Your task to perform on an android device: Open the phone app and click the voicemail tab. Image 0: 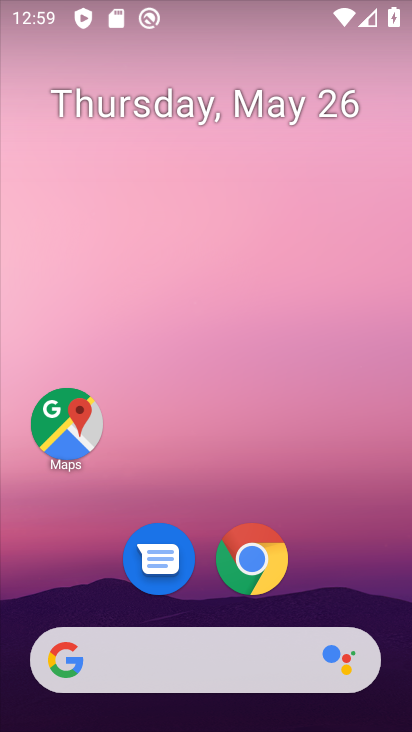
Step 0: press home button
Your task to perform on an android device: Open the phone app and click the voicemail tab. Image 1: 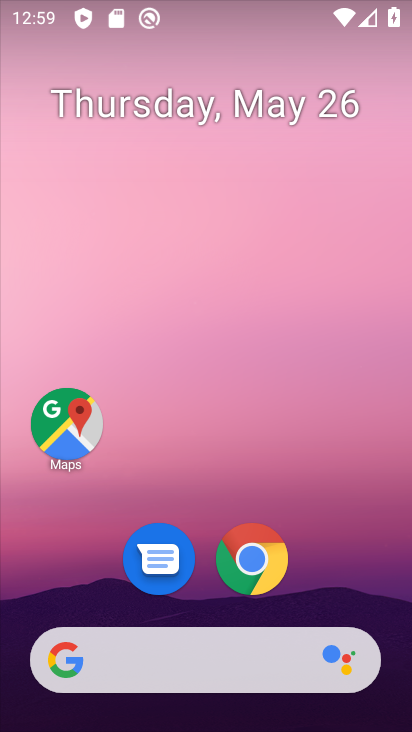
Step 1: drag from (194, 659) to (338, 221)
Your task to perform on an android device: Open the phone app and click the voicemail tab. Image 2: 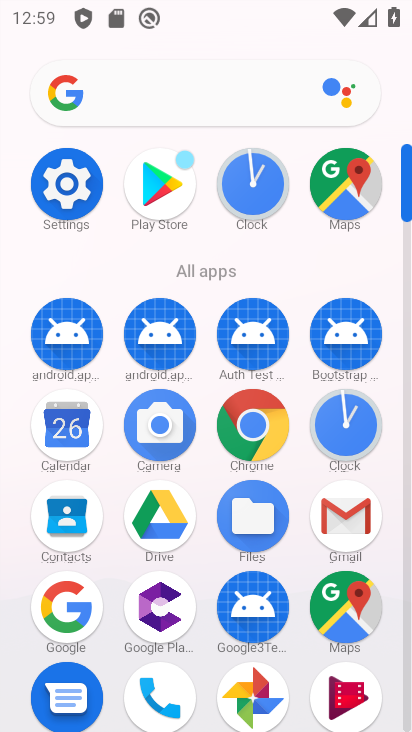
Step 2: drag from (161, 483) to (352, 154)
Your task to perform on an android device: Open the phone app and click the voicemail tab. Image 3: 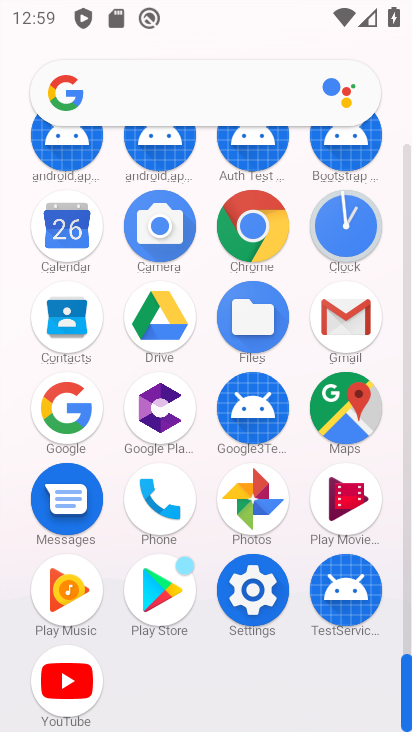
Step 3: click (162, 504)
Your task to perform on an android device: Open the phone app and click the voicemail tab. Image 4: 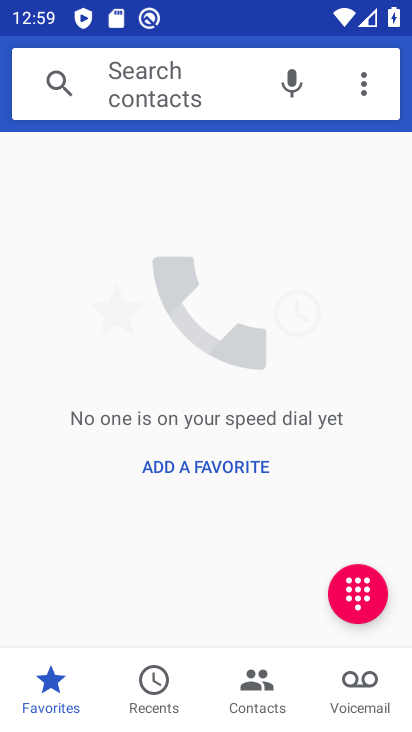
Step 4: click (360, 686)
Your task to perform on an android device: Open the phone app and click the voicemail tab. Image 5: 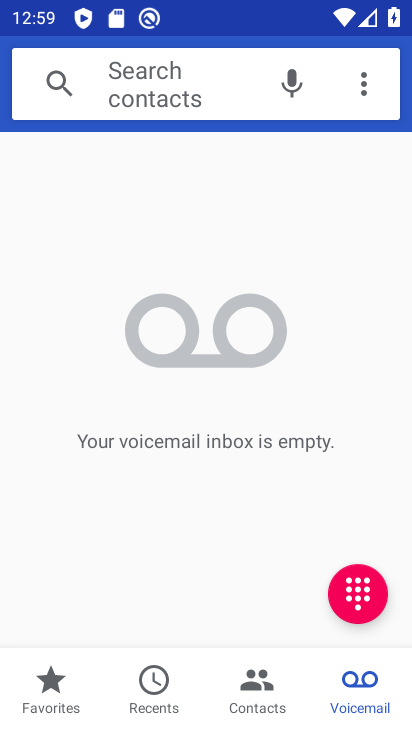
Step 5: task complete